Your task to perform on an android device: Do I have any events today? Image 0: 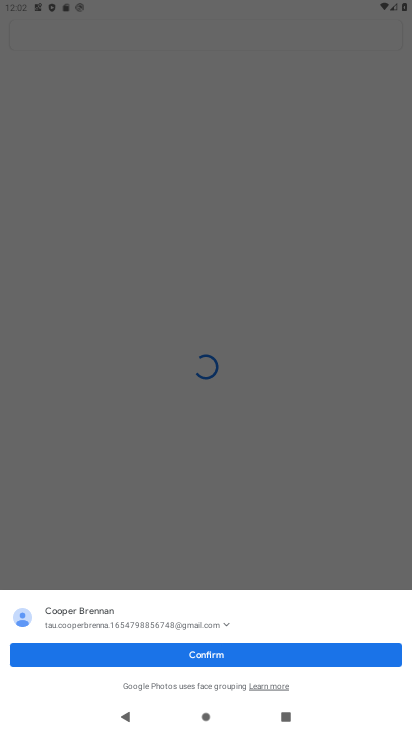
Step 0: press home button
Your task to perform on an android device: Do I have any events today? Image 1: 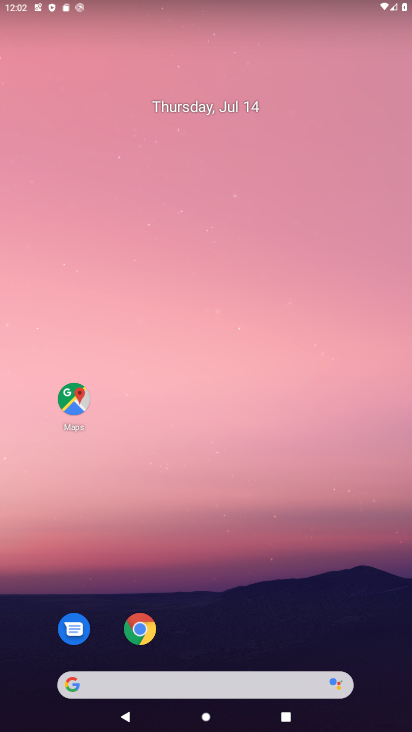
Step 1: drag from (256, 624) to (165, 47)
Your task to perform on an android device: Do I have any events today? Image 2: 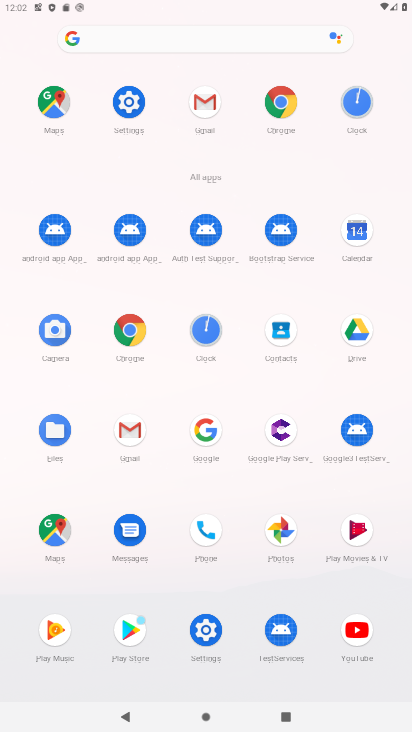
Step 2: click (356, 227)
Your task to perform on an android device: Do I have any events today? Image 3: 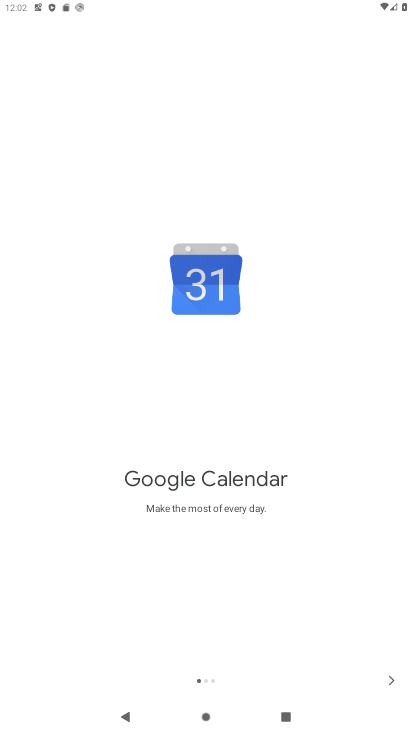
Step 3: click (389, 687)
Your task to perform on an android device: Do I have any events today? Image 4: 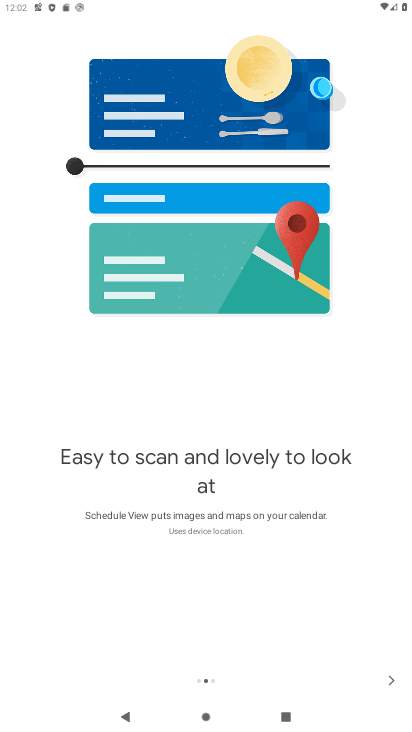
Step 4: click (389, 687)
Your task to perform on an android device: Do I have any events today? Image 5: 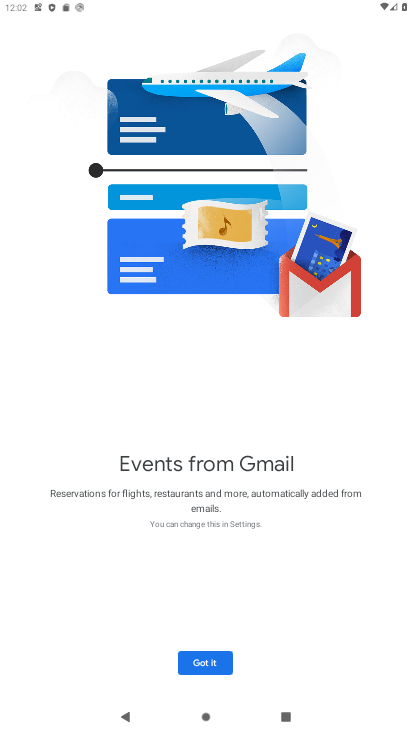
Step 5: click (191, 657)
Your task to perform on an android device: Do I have any events today? Image 6: 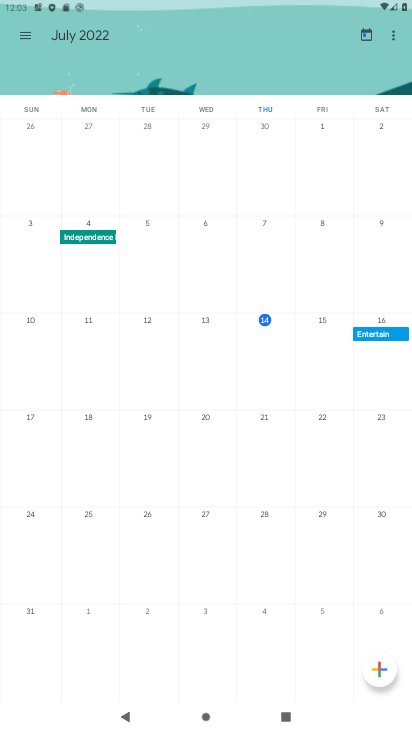
Step 6: click (25, 29)
Your task to perform on an android device: Do I have any events today? Image 7: 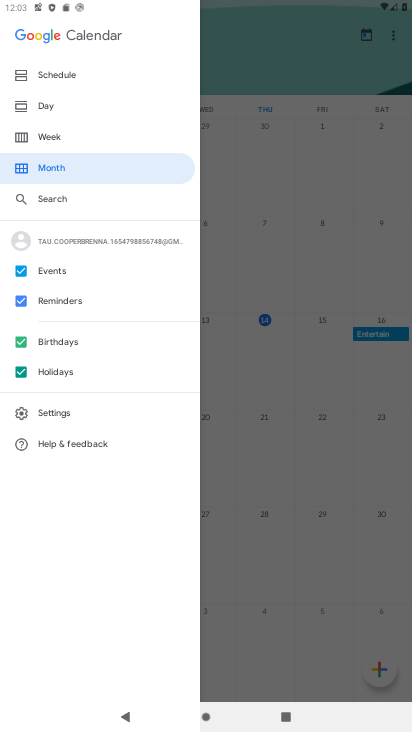
Step 7: click (19, 371)
Your task to perform on an android device: Do I have any events today? Image 8: 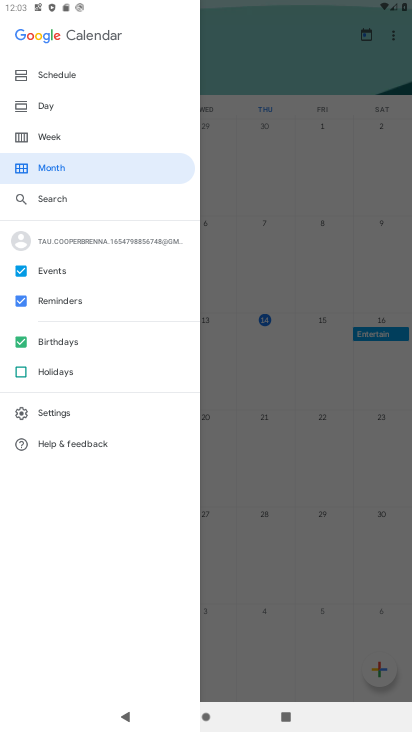
Step 8: click (19, 342)
Your task to perform on an android device: Do I have any events today? Image 9: 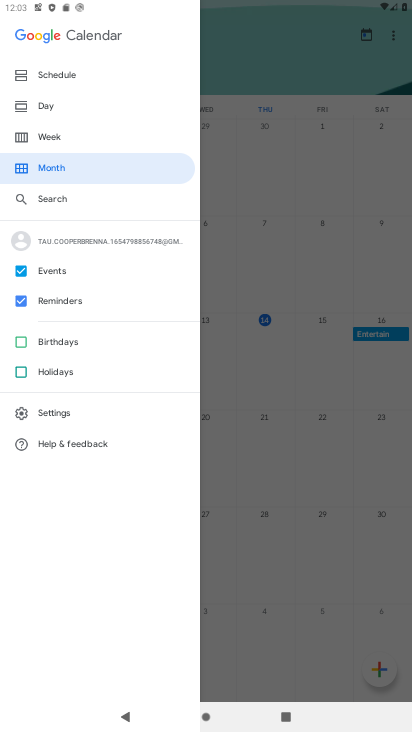
Step 9: click (21, 306)
Your task to perform on an android device: Do I have any events today? Image 10: 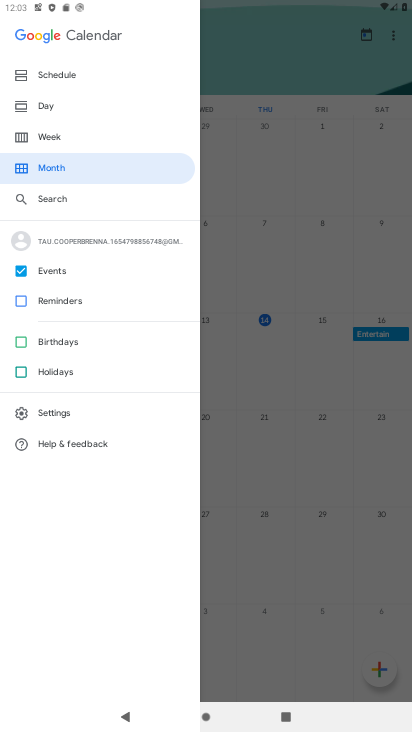
Step 10: click (105, 95)
Your task to perform on an android device: Do I have any events today? Image 11: 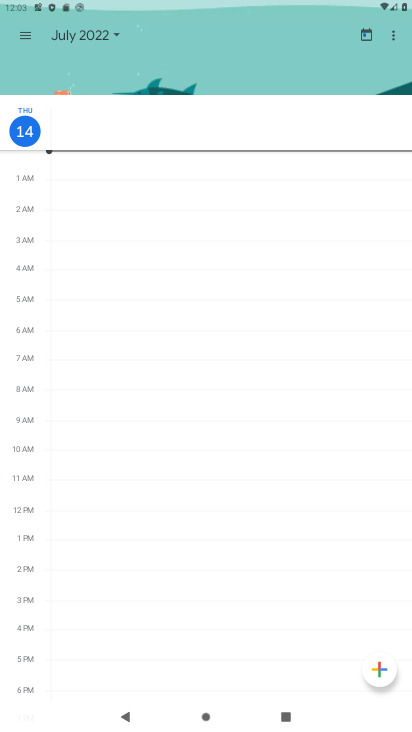
Step 11: task complete